Your task to perform on an android device: What is the recent news? Image 0: 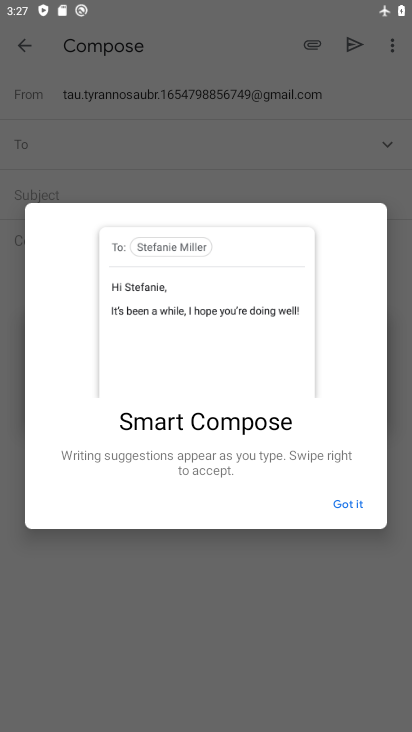
Step 0: press home button
Your task to perform on an android device: What is the recent news? Image 1: 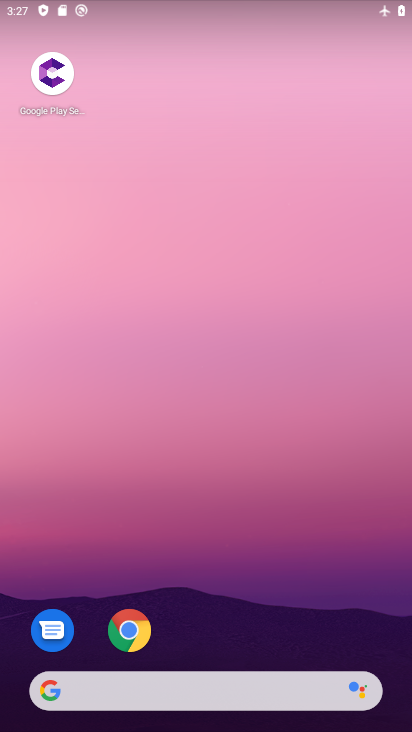
Step 1: click (182, 691)
Your task to perform on an android device: What is the recent news? Image 2: 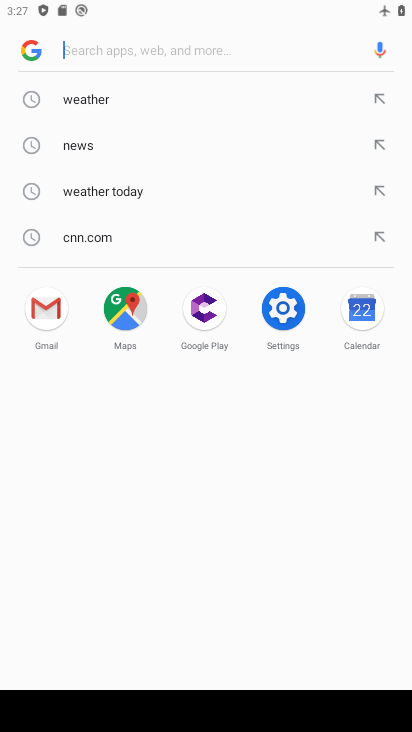
Step 2: type "recent news"
Your task to perform on an android device: What is the recent news? Image 3: 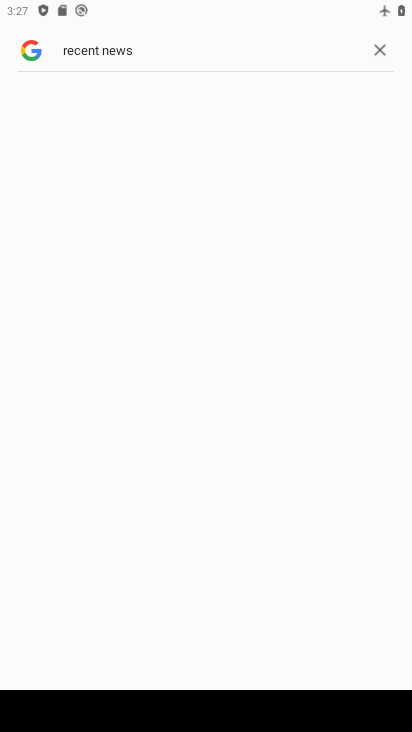
Step 3: click (132, 114)
Your task to perform on an android device: What is the recent news? Image 4: 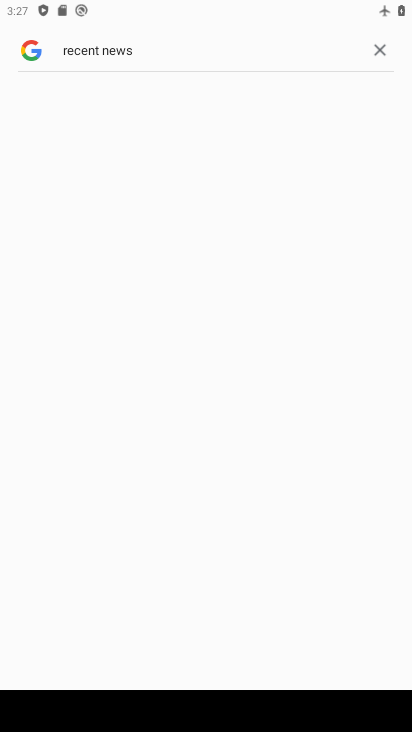
Step 4: task complete